Your task to perform on an android device: turn off notifications in google photos Image 0: 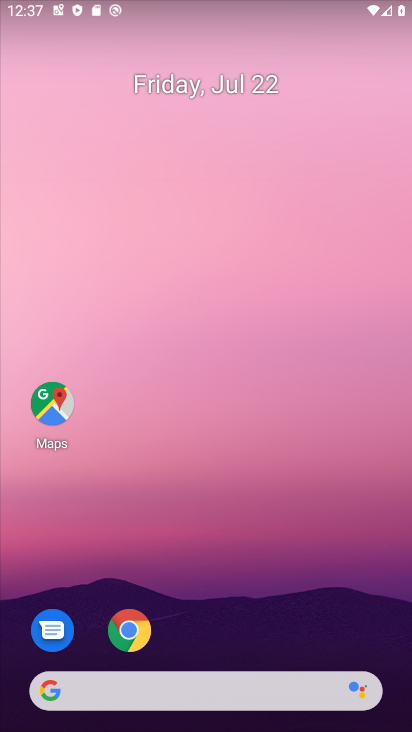
Step 0: drag from (244, 597) to (360, 156)
Your task to perform on an android device: turn off notifications in google photos Image 1: 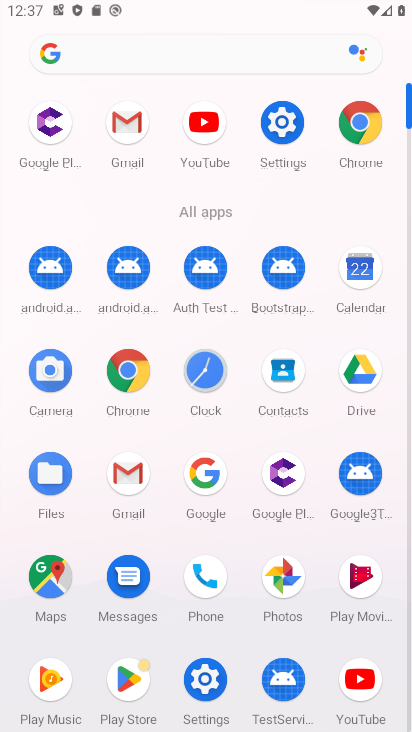
Step 1: click (293, 575)
Your task to perform on an android device: turn off notifications in google photos Image 2: 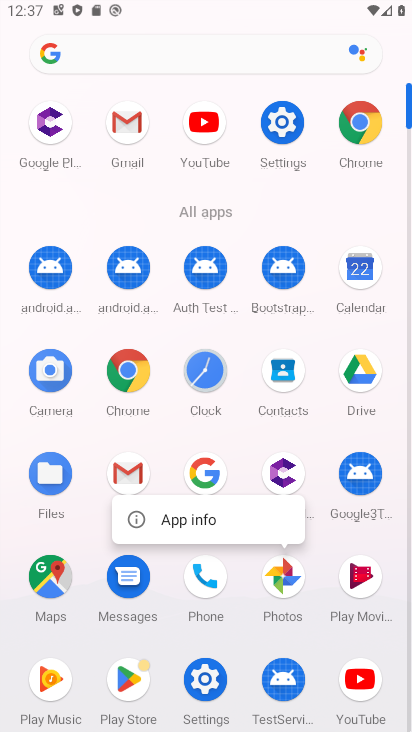
Step 2: click (269, 513)
Your task to perform on an android device: turn off notifications in google photos Image 3: 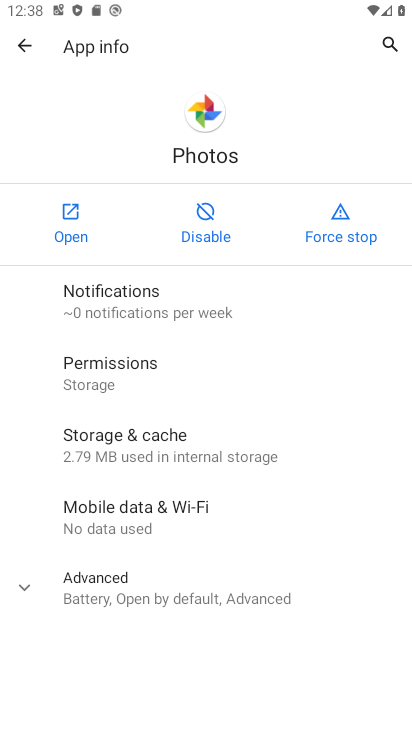
Step 3: click (131, 308)
Your task to perform on an android device: turn off notifications in google photos Image 4: 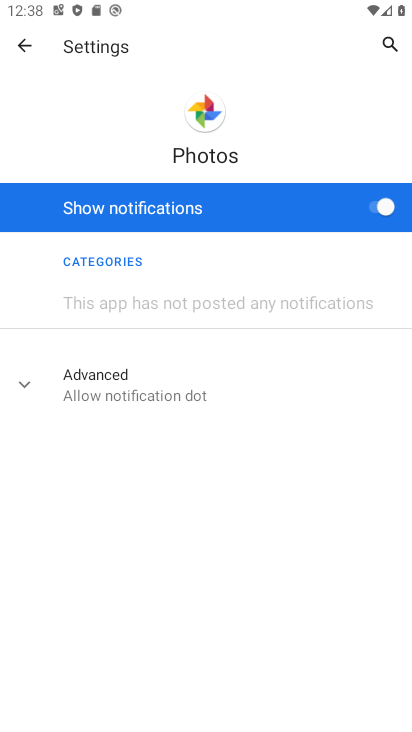
Step 4: click (203, 206)
Your task to perform on an android device: turn off notifications in google photos Image 5: 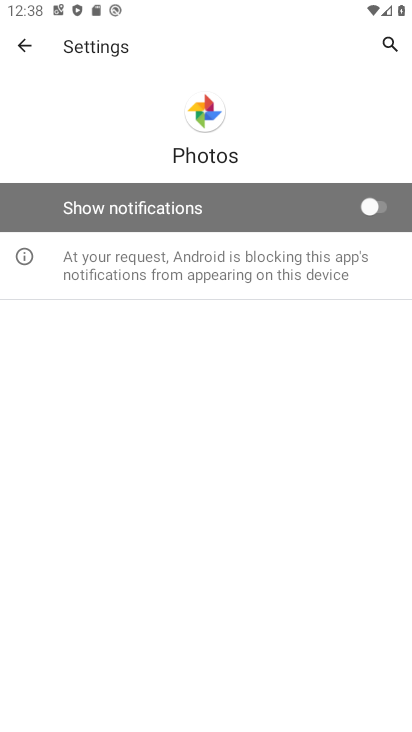
Step 5: task complete